Your task to perform on an android device: When is my next appointment? Image 0: 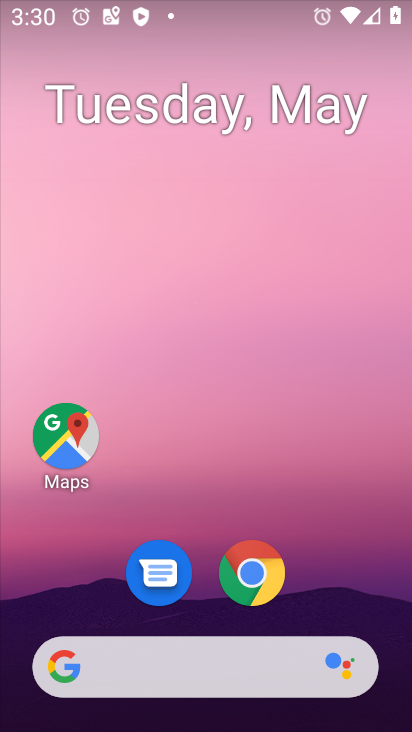
Step 0: drag from (316, 447) to (265, 9)
Your task to perform on an android device: When is my next appointment? Image 1: 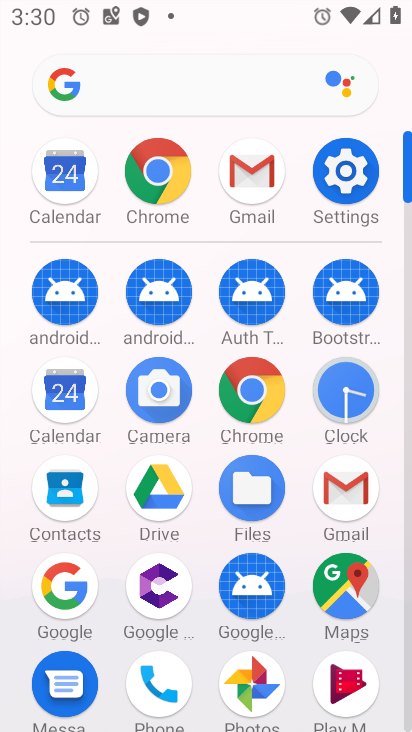
Step 1: drag from (0, 629) to (16, 215)
Your task to perform on an android device: When is my next appointment? Image 2: 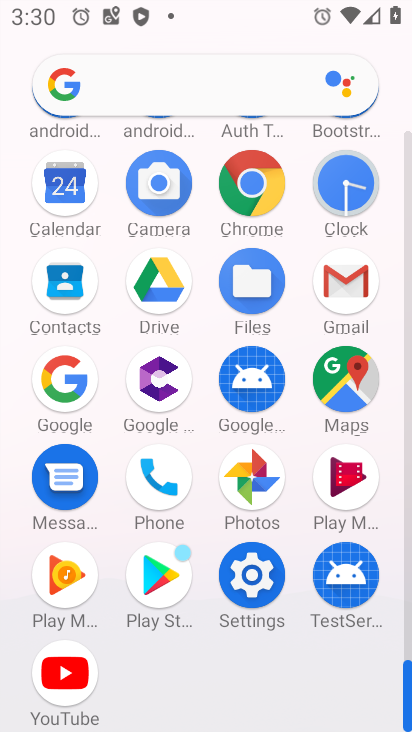
Step 2: drag from (11, 206) to (7, 523)
Your task to perform on an android device: When is my next appointment? Image 3: 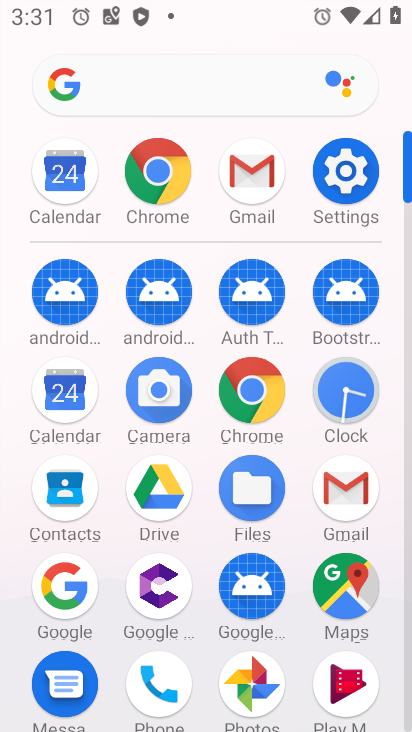
Step 3: drag from (16, 550) to (26, 226)
Your task to perform on an android device: When is my next appointment? Image 4: 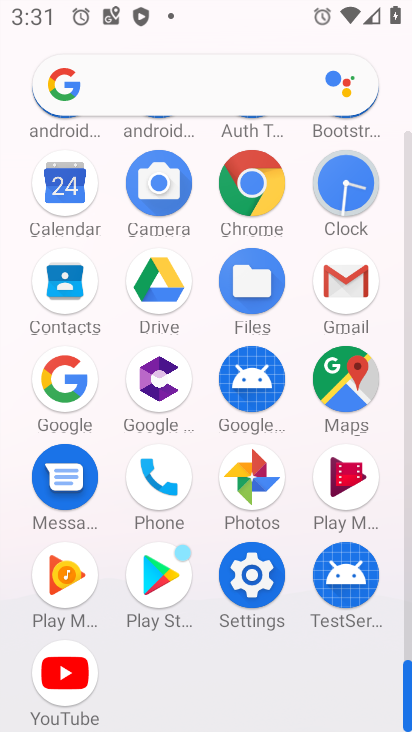
Step 4: drag from (23, 302) to (2, 598)
Your task to perform on an android device: When is my next appointment? Image 5: 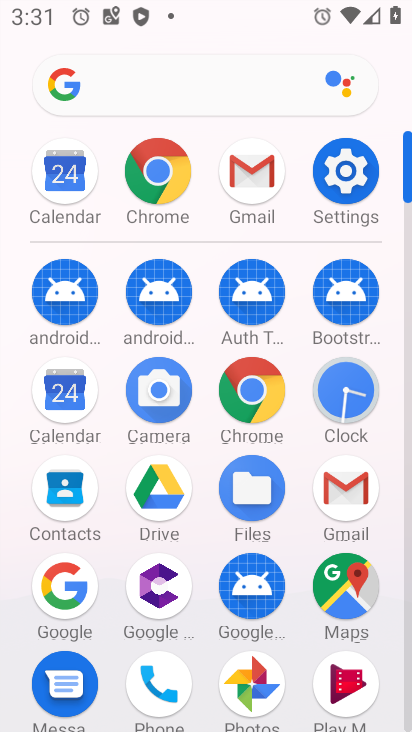
Step 5: click (67, 383)
Your task to perform on an android device: When is my next appointment? Image 6: 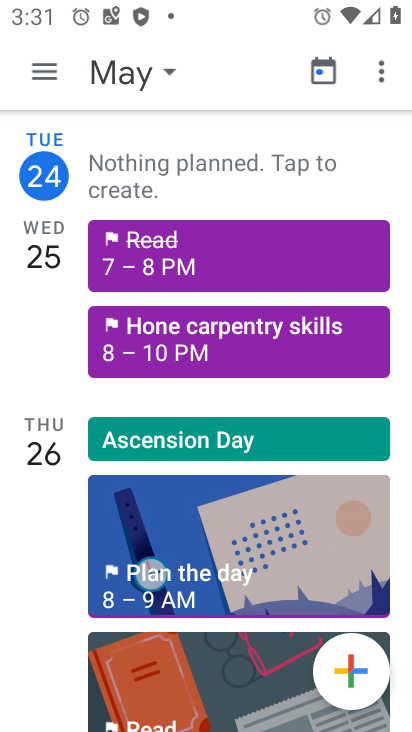
Step 6: click (40, 67)
Your task to perform on an android device: When is my next appointment? Image 7: 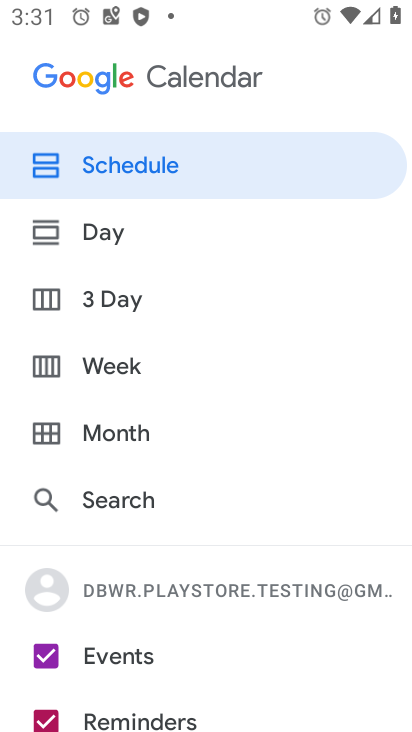
Step 7: click (141, 138)
Your task to perform on an android device: When is my next appointment? Image 8: 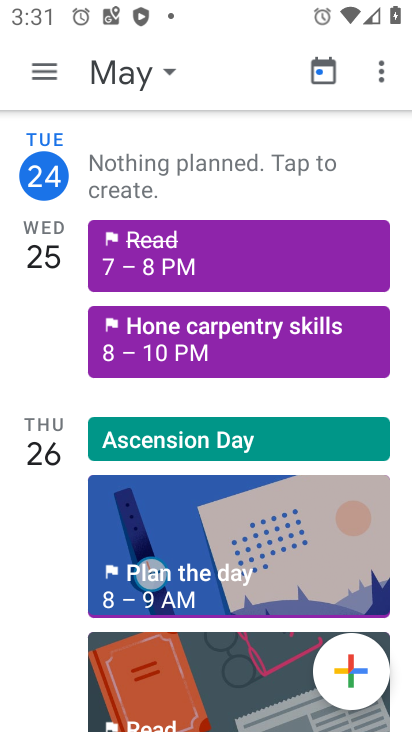
Step 8: task complete